Your task to perform on an android device: Play the last video I watched on Youtube Image 0: 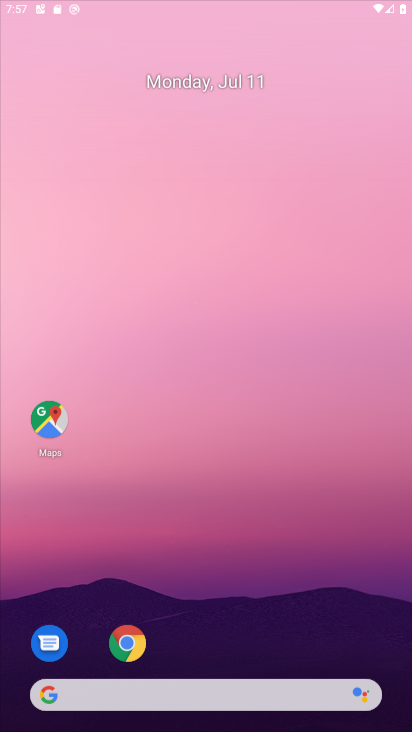
Step 0: click (222, 283)
Your task to perform on an android device: Play the last video I watched on Youtube Image 1: 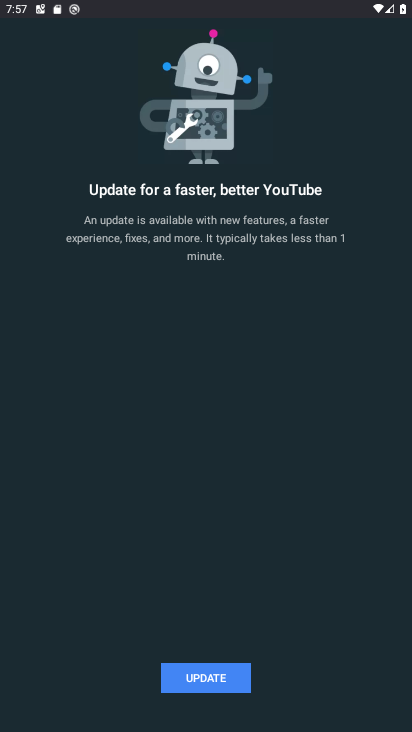
Step 1: press home button
Your task to perform on an android device: Play the last video I watched on Youtube Image 2: 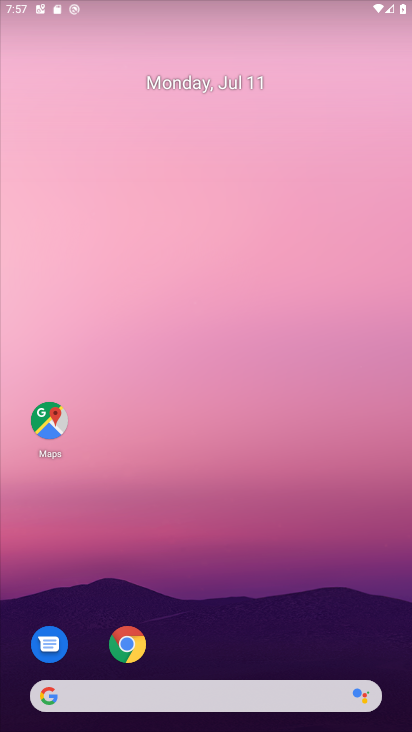
Step 2: drag from (197, 659) to (260, 235)
Your task to perform on an android device: Play the last video I watched on Youtube Image 3: 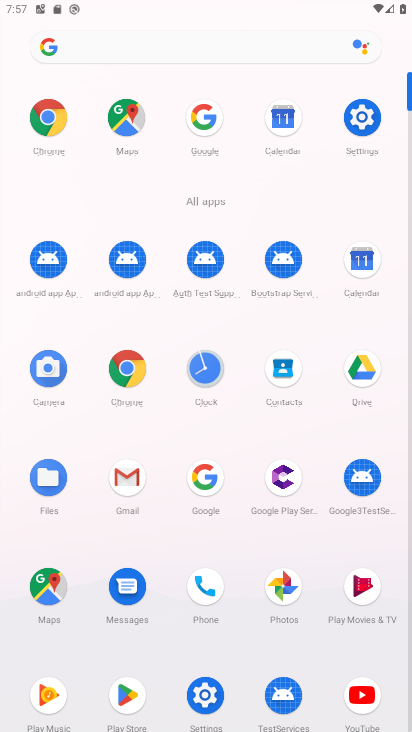
Step 3: click (361, 688)
Your task to perform on an android device: Play the last video I watched on Youtube Image 4: 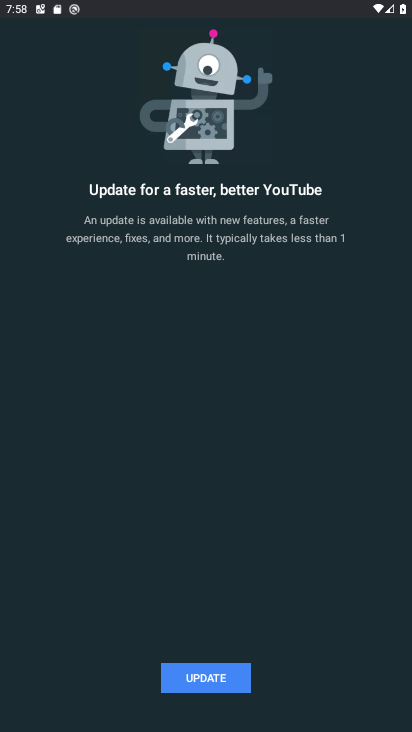
Step 4: task complete